Your task to perform on an android device: Open settings Image 0: 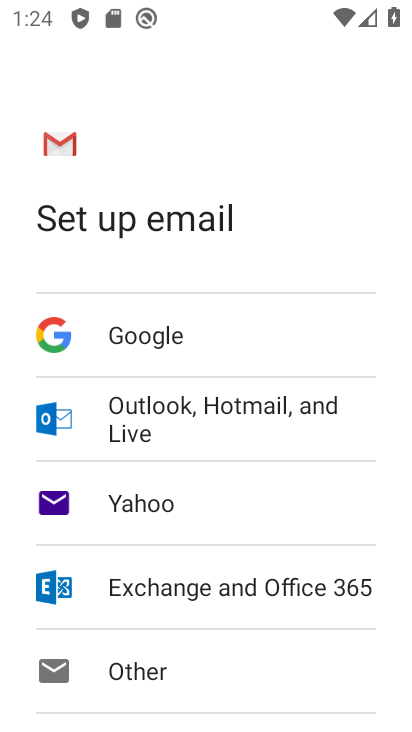
Step 0: press home button
Your task to perform on an android device: Open settings Image 1: 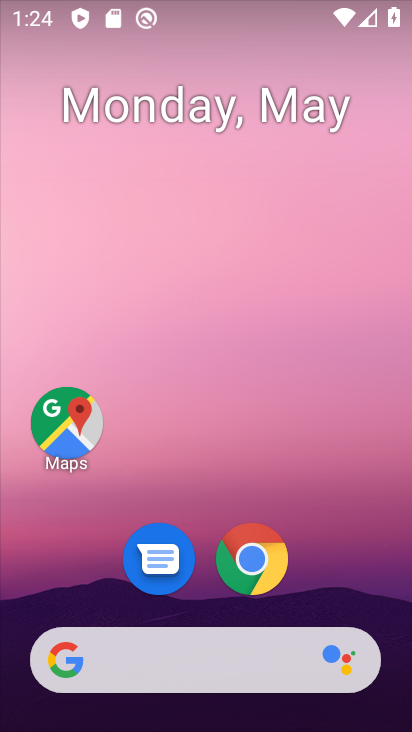
Step 1: drag from (264, 455) to (171, 29)
Your task to perform on an android device: Open settings Image 2: 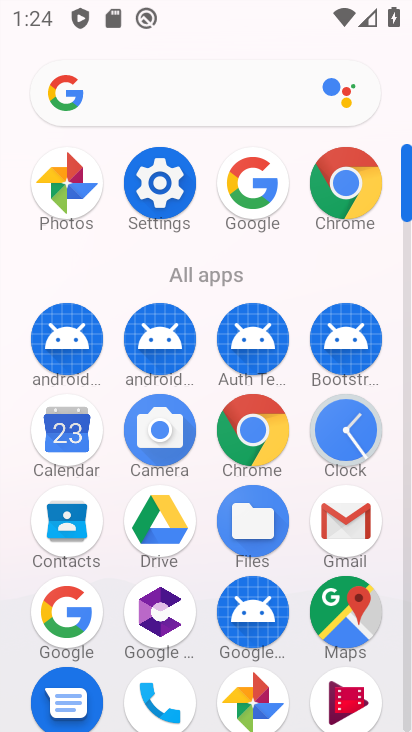
Step 2: click (166, 175)
Your task to perform on an android device: Open settings Image 3: 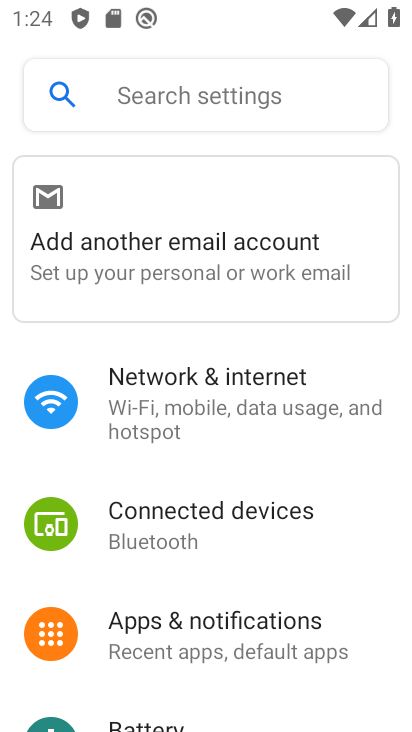
Step 3: task complete